Your task to perform on an android device: change alarm snooze length Image 0: 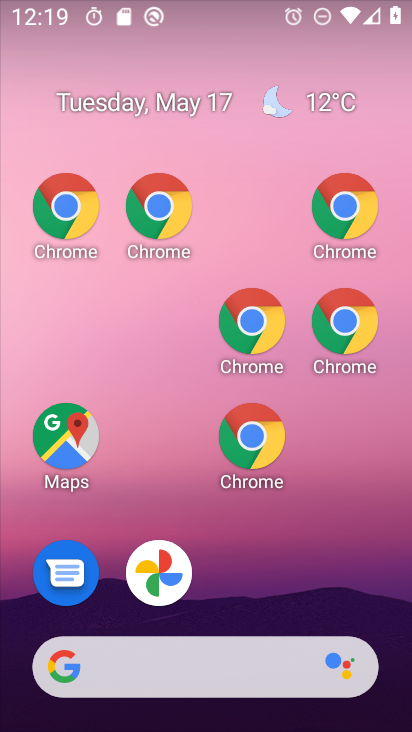
Step 0: drag from (385, 693) to (227, 322)
Your task to perform on an android device: change alarm snooze length Image 1: 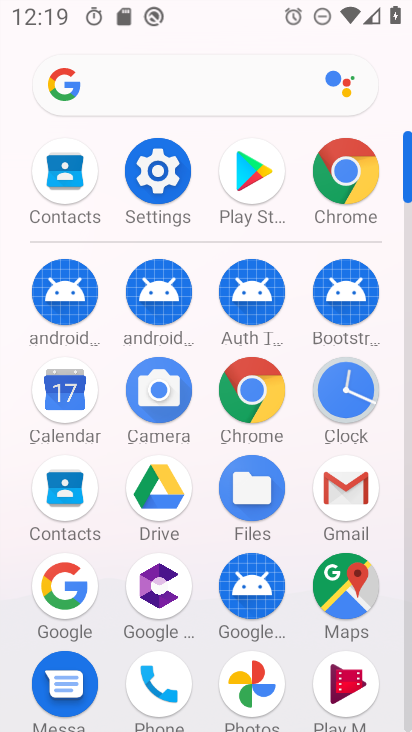
Step 1: click (347, 384)
Your task to perform on an android device: change alarm snooze length Image 2: 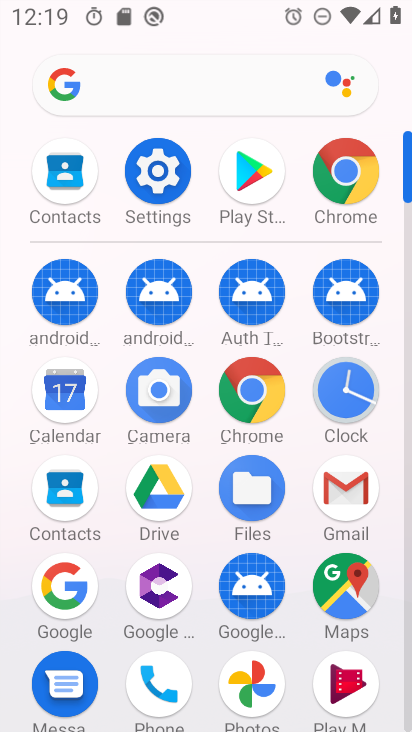
Step 2: drag from (369, 384) to (406, 372)
Your task to perform on an android device: change alarm snooze length Image 3: 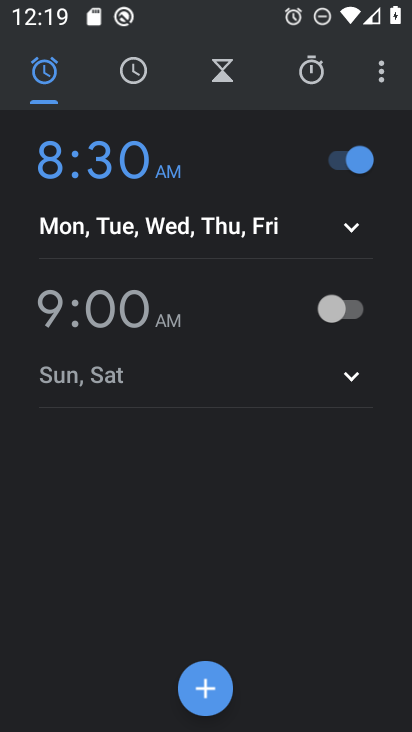
Step 3: click (377, 78)
Your task to perform on an android device: change alarm snooze length Image 4: 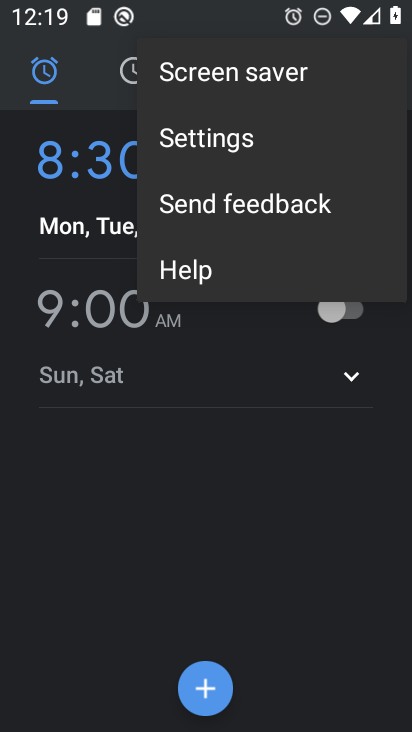
Step 4: click (217, 146)
Your task to perform on an android device: change alarm snooze length Image 5: 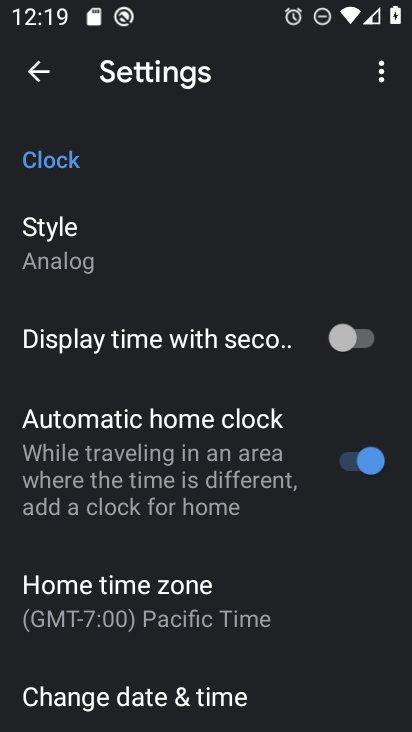
Step 5: drag from (194, 534) to (130, 144)
Your task to perform on an android device: change alarm snooze length Image 6: 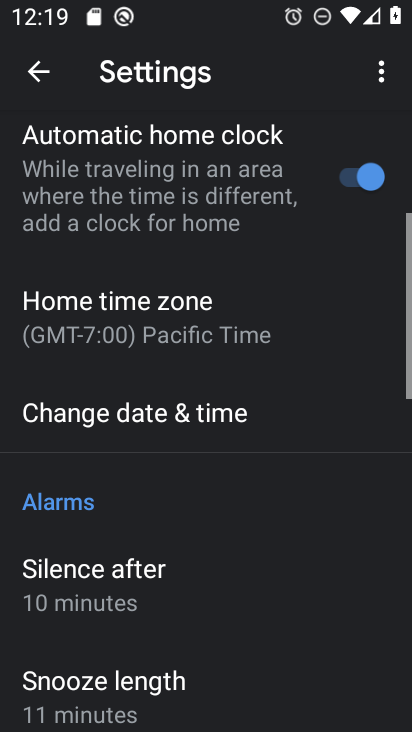
Step 6: drag from (177, 560) to (175, 150)
Your task to perform on an android device: change alarm snooze length Image 7: 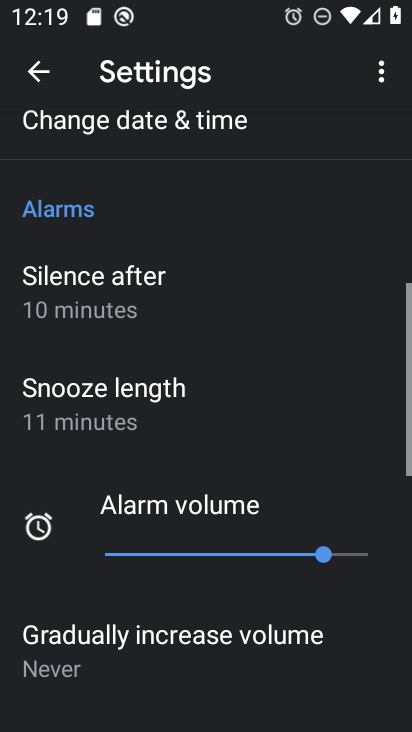
Step 7: drag from (209, 580) to (193, 110)
Your task to perform on an android device: change alarm snooze length Image 8: 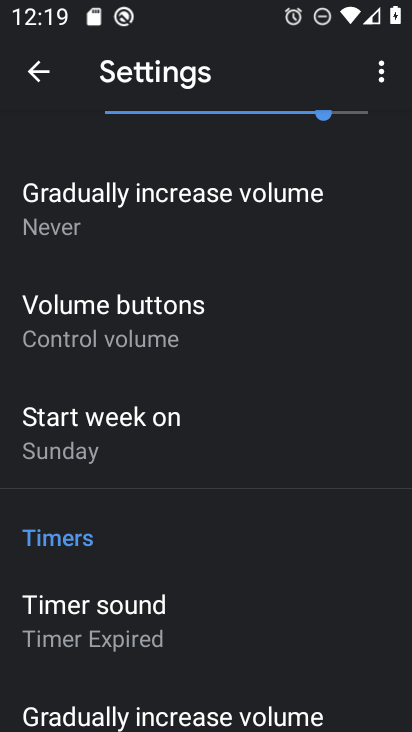
Step 8: drag from (160, 584) to (198, 186)
Your task to perform on an android device: change alarm snooze length Image 9: 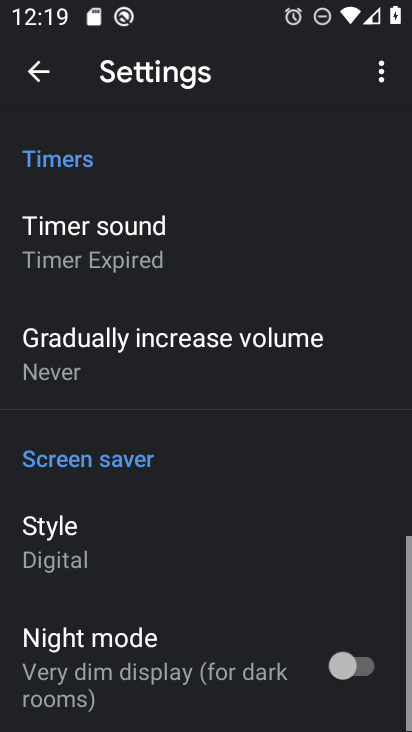
Step 9: drag from (207, 395) to (243, 124)
Your task to perform on an android device: change alarm snooze length Image 10: 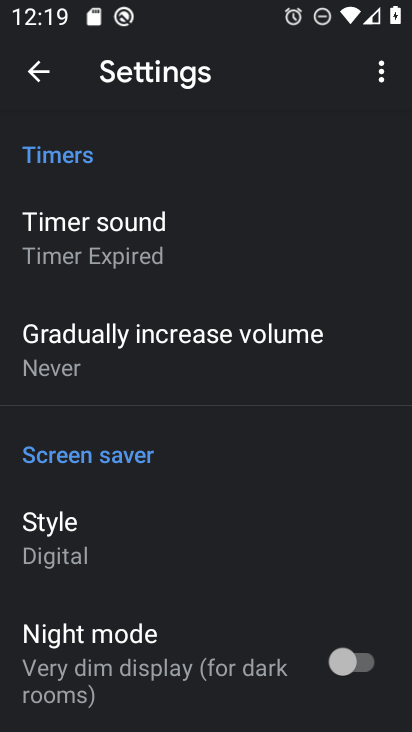
Step 10: drag from (197, 521) to (174, 241)
Your task to perform on an android device: change alarm snooze length Image 11: 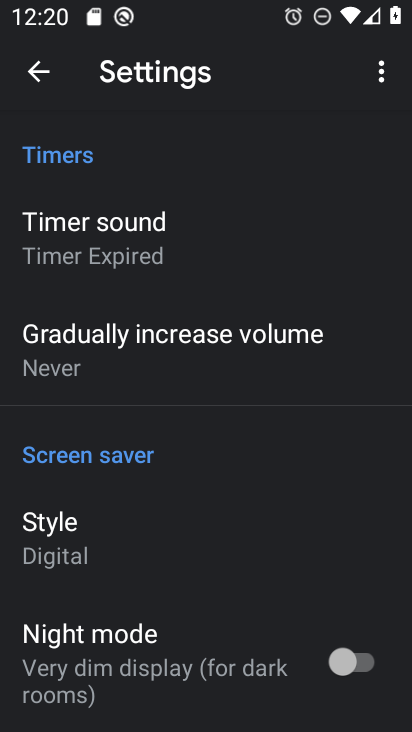
Step 11: drag from (194, 524) to (169, 243)
Your task to perform on an android device: change alarm snooze length Image 12: 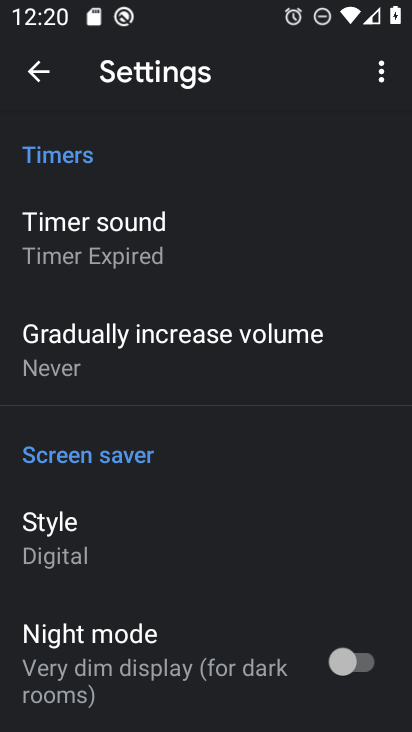
Step 12: drag from (203, 541) to (179, 217)
Your task to perform on an android device: change alarm snooze length Image 13: 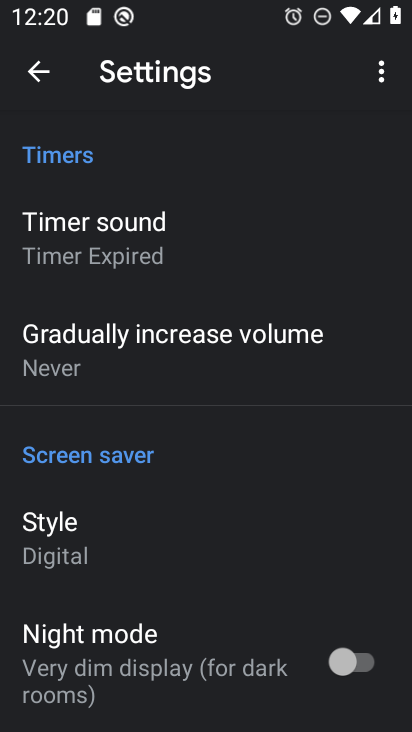
Step 13: drag from (164, 591) to (188, 200)
Your task to perform on an android device: change alarm snooze length Image 14: 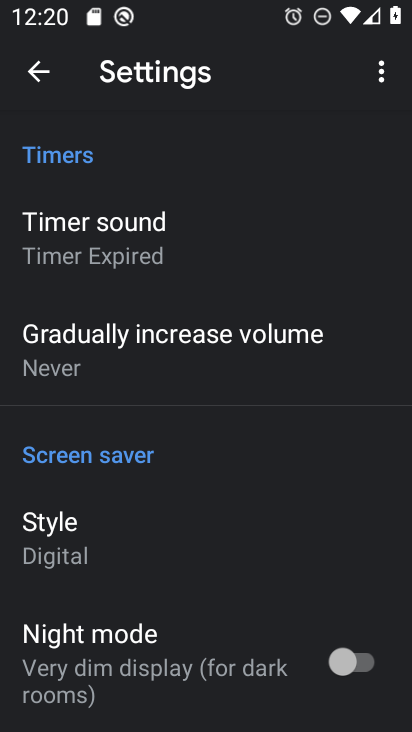
Step 14: drag from (247, 539) to (246, 194)
Your task to perform on an android device: change alarm snooze length Image 15: 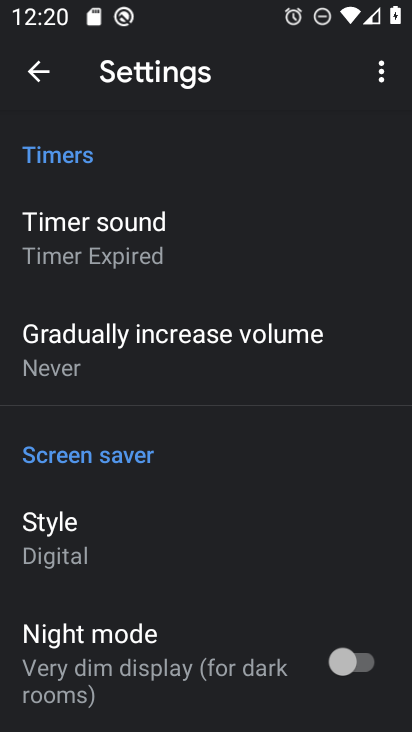
Step 15: drag from (160, 277) to (174, 656)
Your task to perform on an android device: change alarm snooze length Image 16: 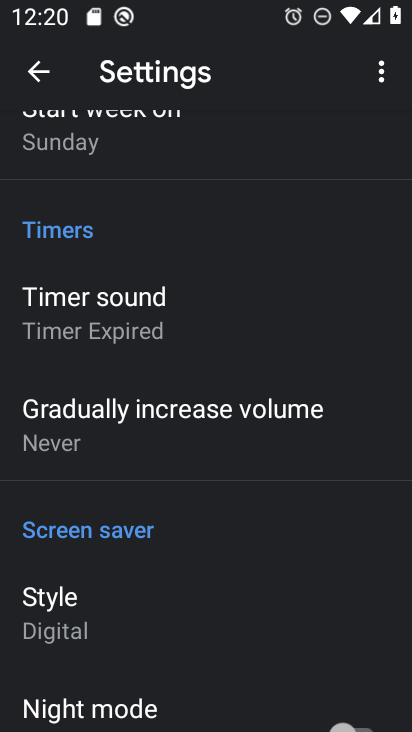
Step 16: drag from (114, 312) to (174, 642)
Your task to perform on an android device: change alarm snooze length Image 17: 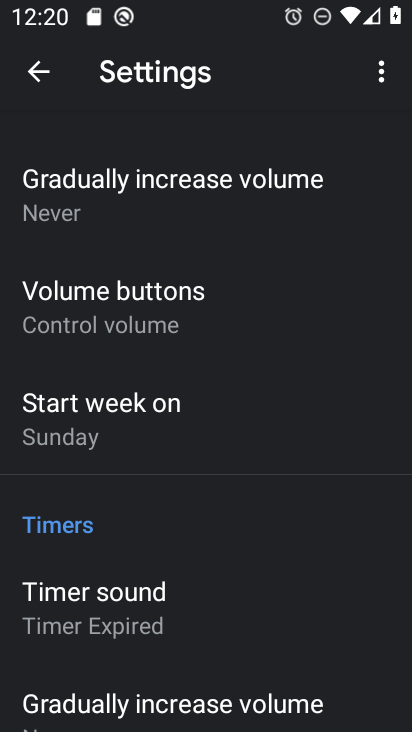
Step 17: drag from (148, 341) to (186, 683)
Your task to perform on an android device: change alarm snooze length Image 18: 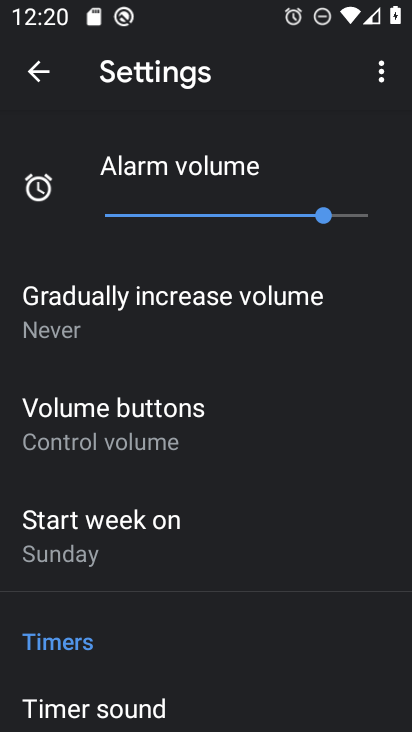
Step 18: drag from (147, 321) to (180, 651)
Your task to perform on an android device: change alarm snooze length Image 19: 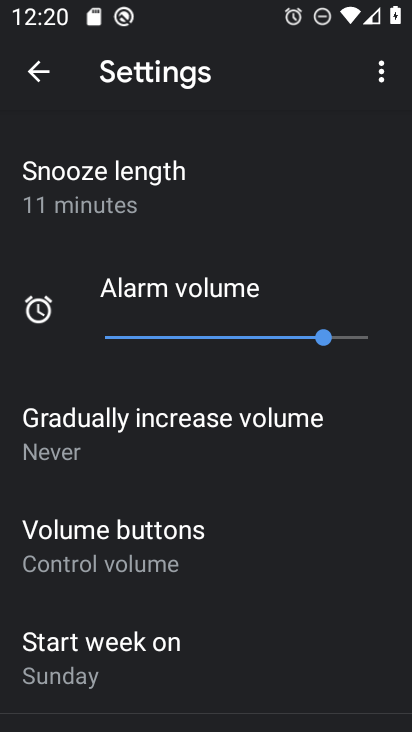
Step 19: click (88, 194)
Your task to perform on an android device: change alarm snooze length Image 20: 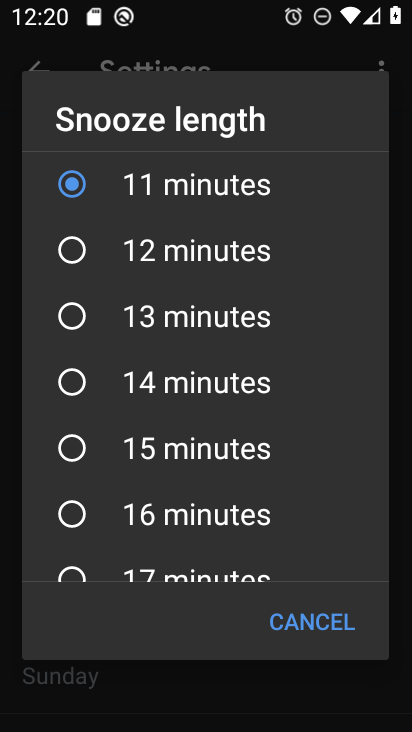
Step 20: click (77, 440)
Your task to perform on an android device: change alarm snooze length Image 21: 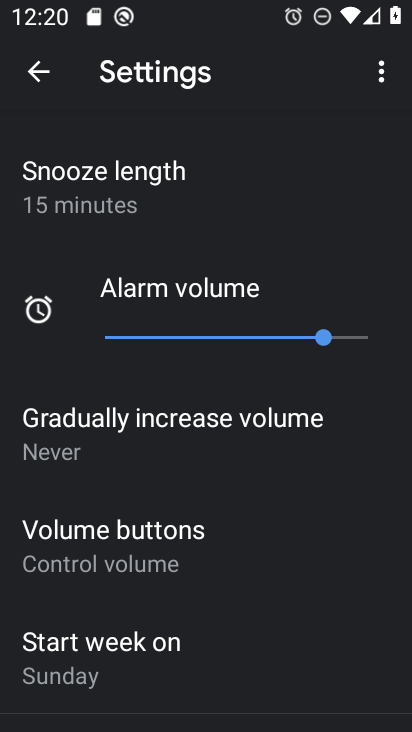
Step 21: task complete